Your task to perform on an android device: Open Chrome and go to settings Image 0: 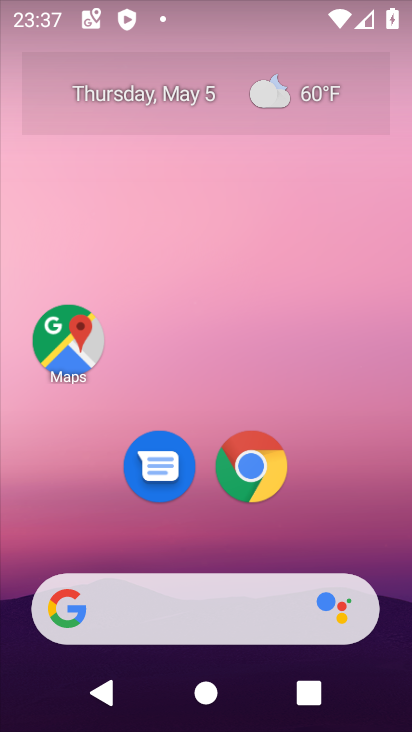
Step 0: click (262, 474)
Your task to perform on an android device: Open Chrome and go to settings Image 1: 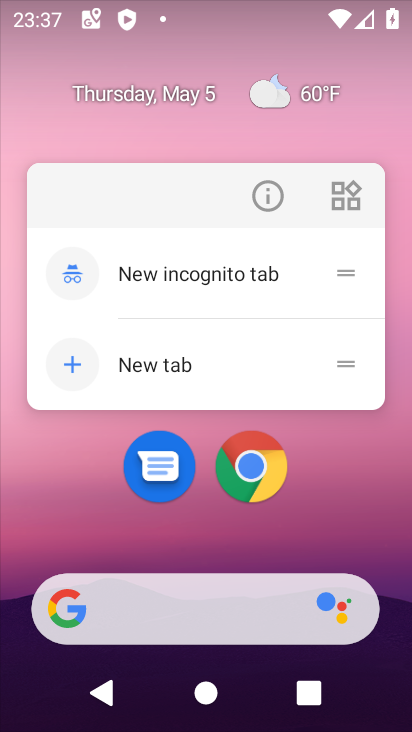
Step 1: click (246, 466)
Your task to perform on an android device: Open Chrome and go to settings Image 2: 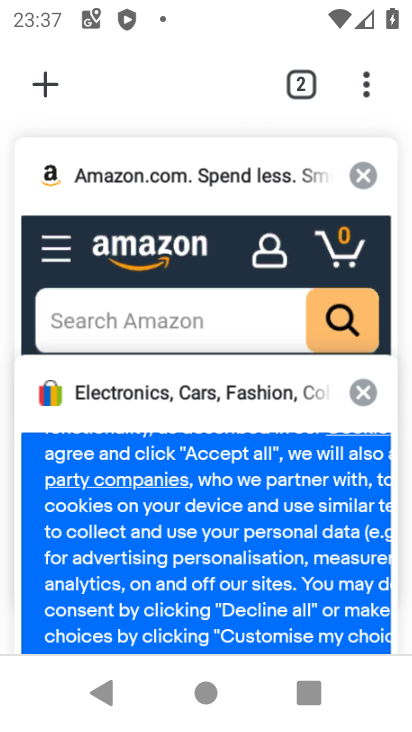
Step 2: click (362, 173)
Your task to perform on an android device: Open Chrome and go to settings Image 3: 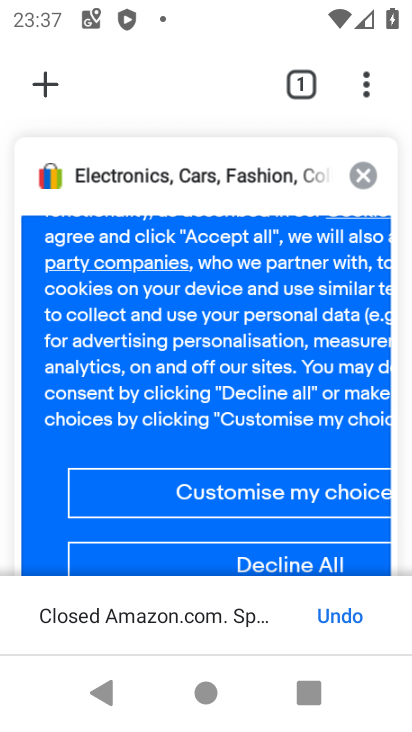
Step 3: click (362, 173)
Your task to perform on an android device: Open Chrome and go to settings Image 4: 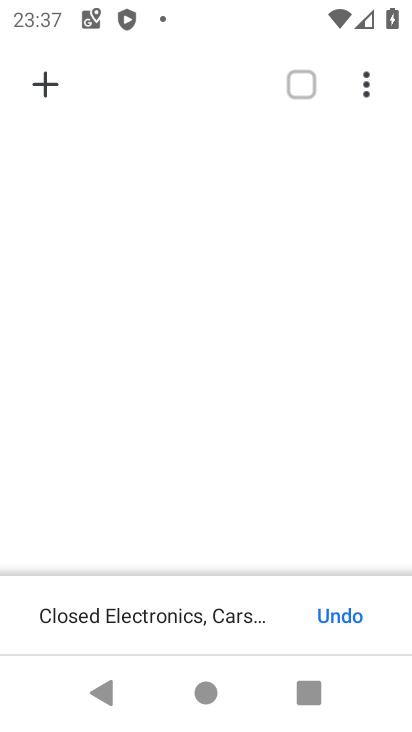
Step 4: click (365, 76)
Your task to perform on an android device: Open Chrome and go to settings Image 5: 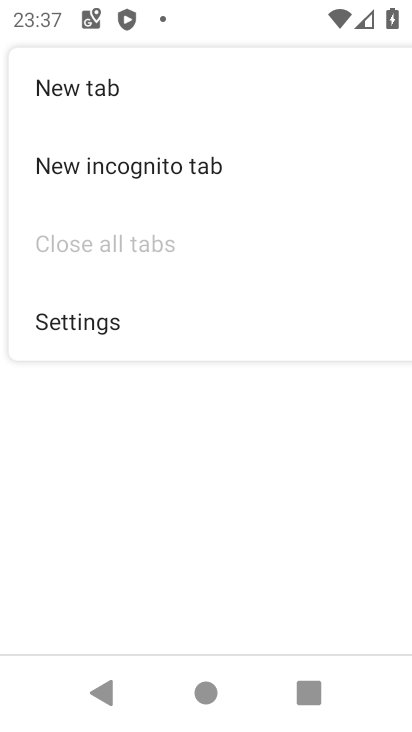
Step 5: click (86, 316)
Your task to perform on an android device: Open Chrome and go to settings Image 6: 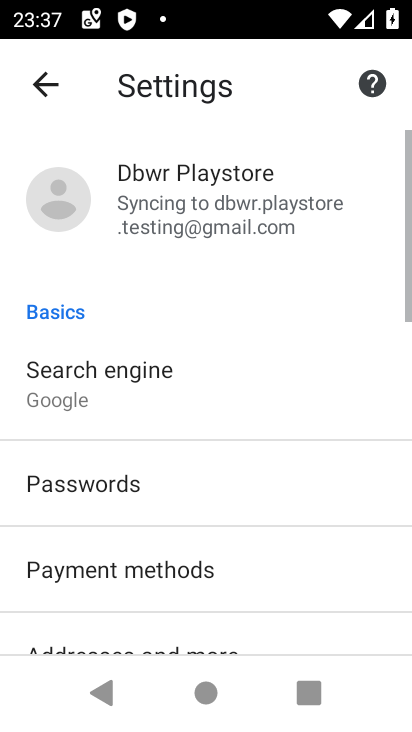
Step 6: task complete